Your task to perform on an android device: Open Yahoo.com Image 0: 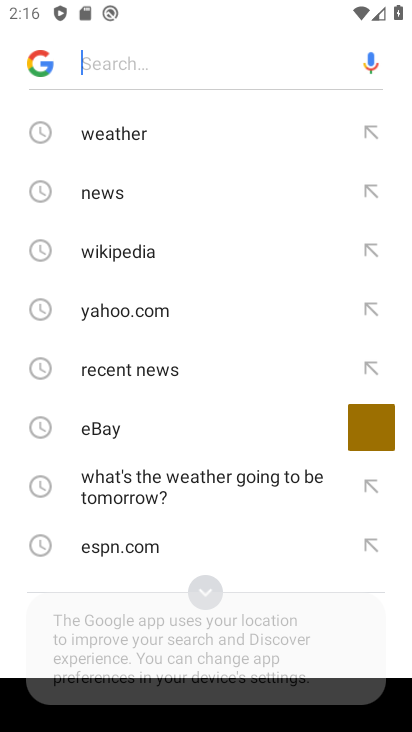
Step 0: press home button
Your task to perform on an android device: Open Yahoo.com Image 1: 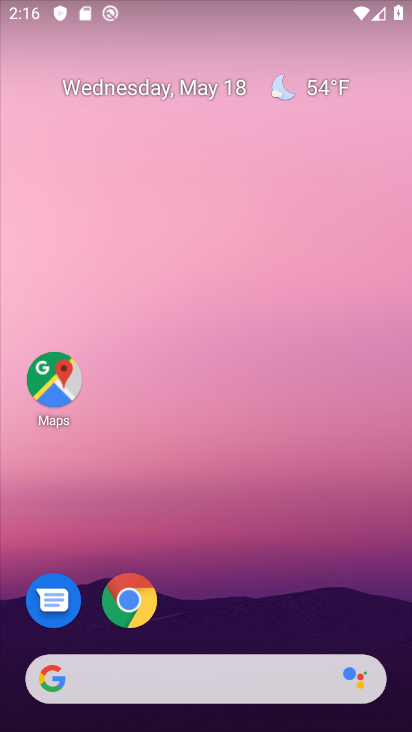
Step 1: click (136, 609)
Your task to perform on an android device: Open Yahoo.com Image 2: 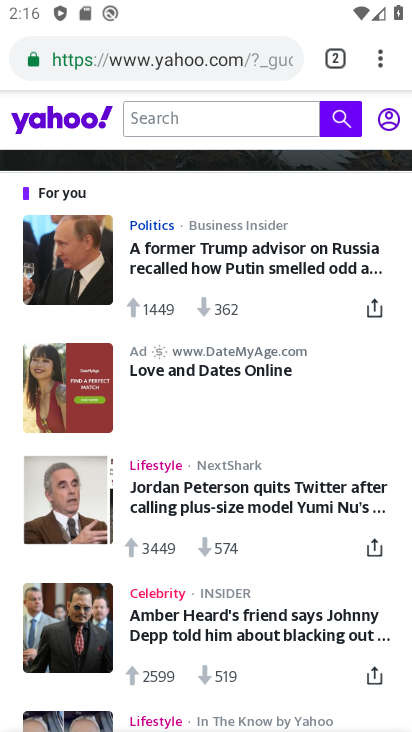
Step 2: task complete